Your task to perform on an android device: Turn on the flashlight Image 0: 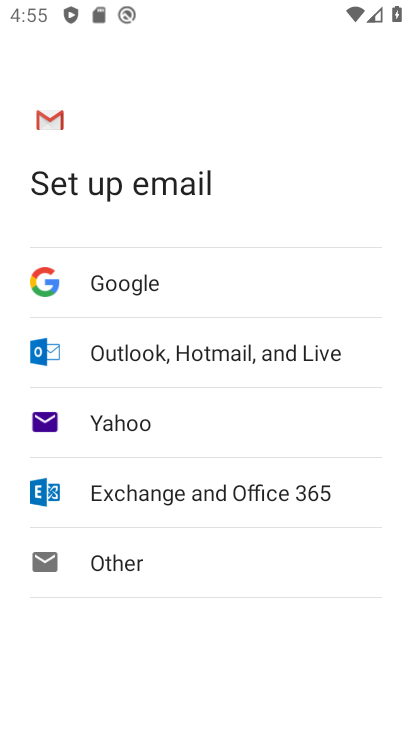
Step 0: press home button
Your task to perform on an android device: Turn on the flashlight Image 1: 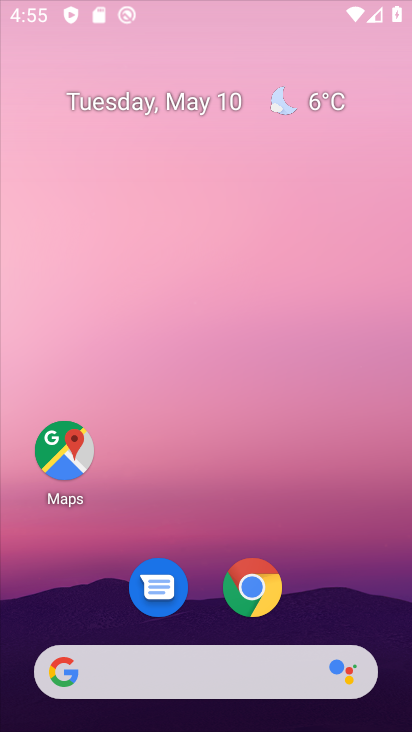
Step 1: task complete